Your task to perform on an android device: Go to privacy settings Image 0: 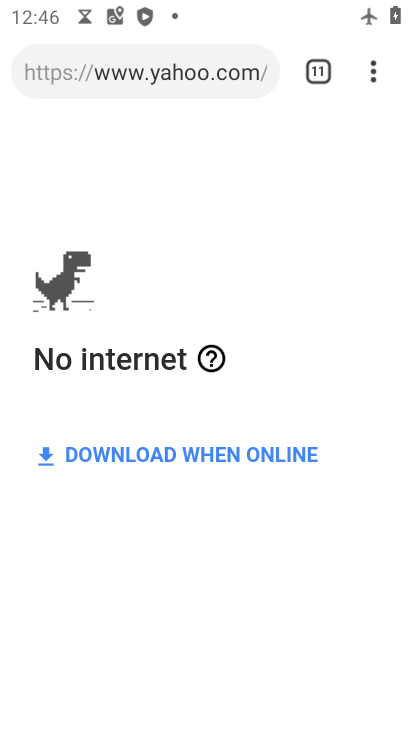
Step 0: press home button
Your task to perform on an android device: Go to privacy settings Image 1: 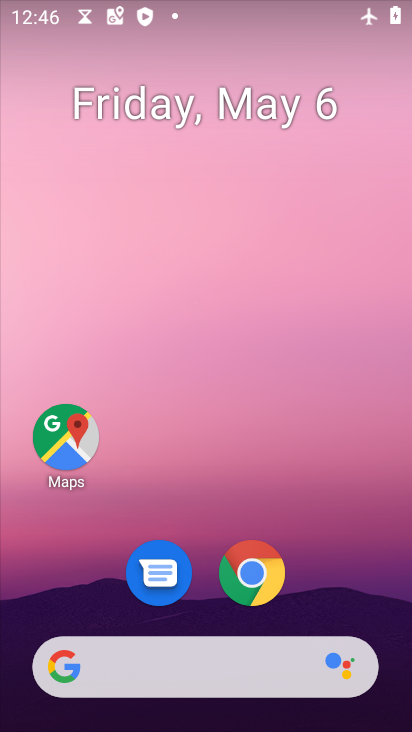
Step 1: drag from (311, 600) to (288, 300)
Your task to perform on an android device: Go to privacy settings Image 2: 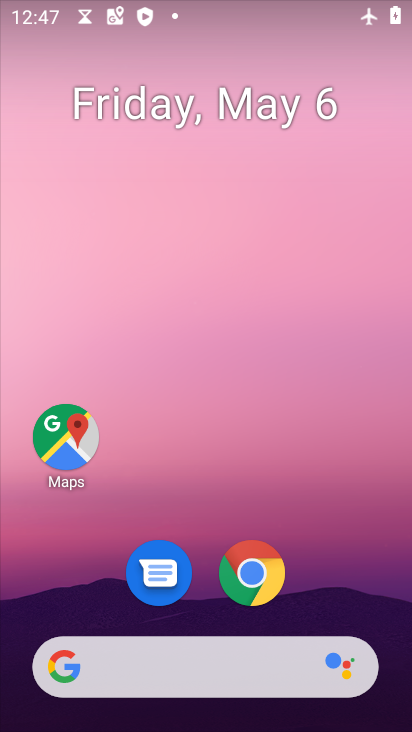
Step 2: drag from (322, 590) to (374, 188)
Your task to perform on an android device: Go to privacy settings Image 3: 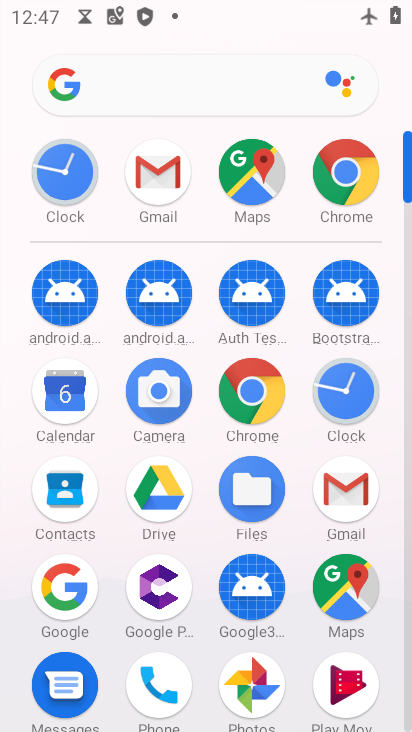
Step 3: click (353, 175)
Your task to perform on an android device: Go to privacy settings Image 4: 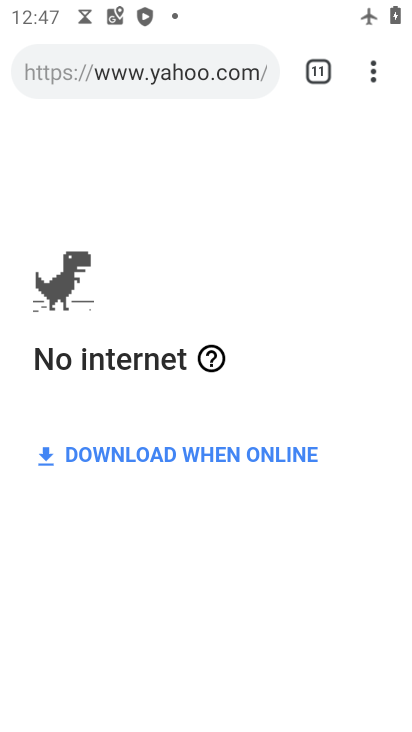
Step 4: click (361, 71)
Your task to perform on an android device: Go to privacy settings Image 5: 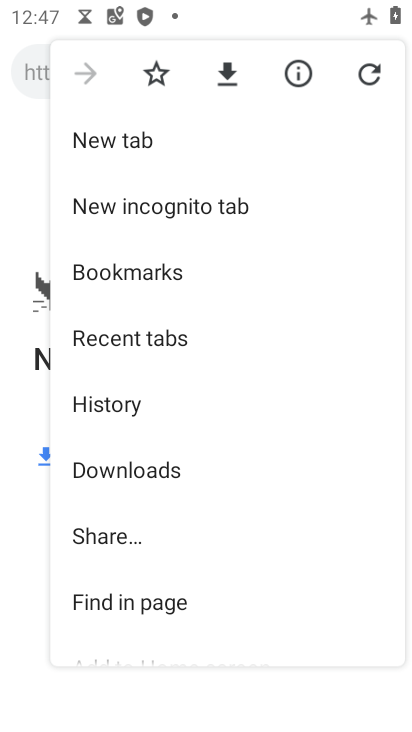
Step 5: drag from (157, 617) to (189, 257)
Your task to perform on an android device: Go to privacy settings Image 6: 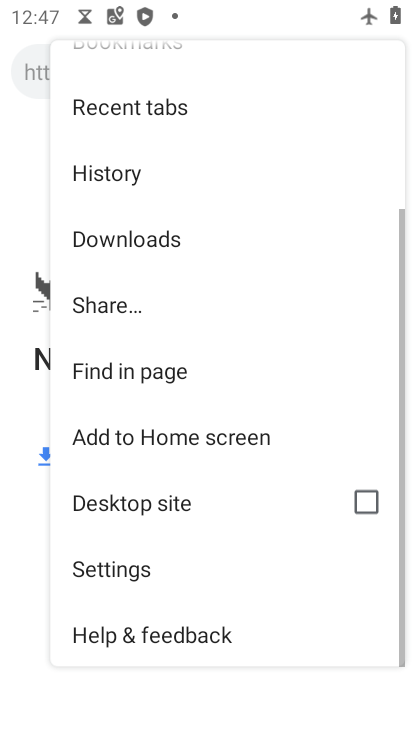
Step 6: click (165, 571)
Your task to perform on an android device: Go to privacy settings Image 7: 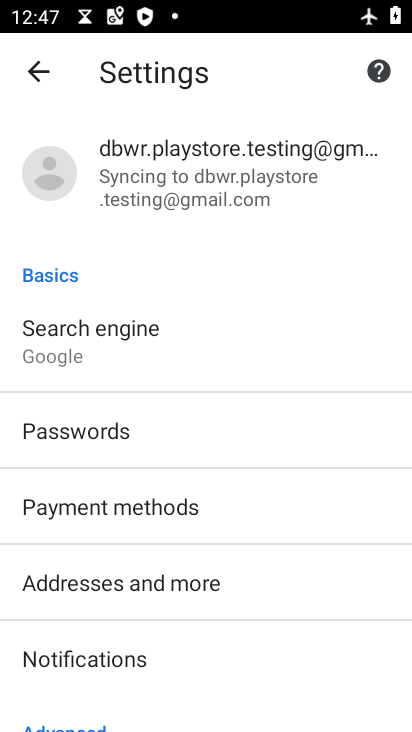
Step 7: drag from (184, 661) to (250, 245)
Your task to perform on an android device: Go to privacy settings Image 8: 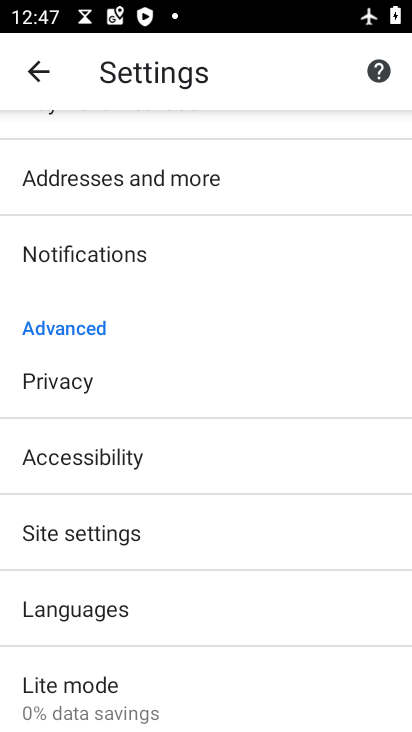
Step 8: click (91, 388)
Your task to perform on an android device: Go to privacy settings Image 9: 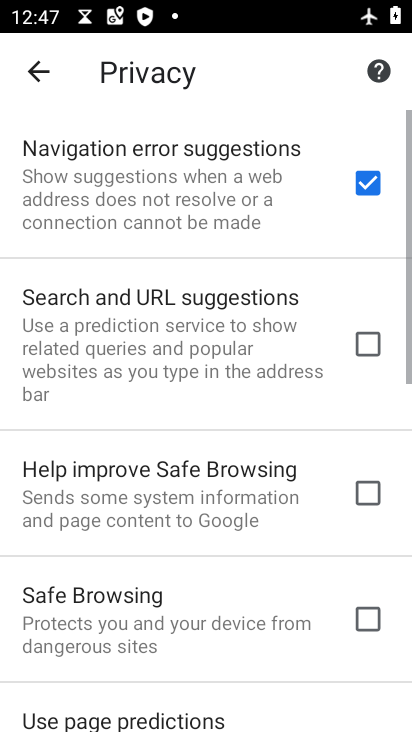
Step 9: task complete